Your task to perform on an android device: What is the news today? Image 0: 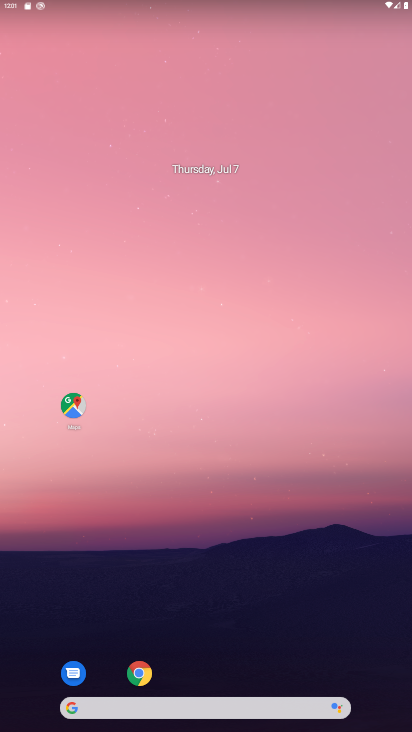
Step 0: drag from (184, 713) to (277, 358)
Your task to perform on an android device: What is the news today? Image 1: 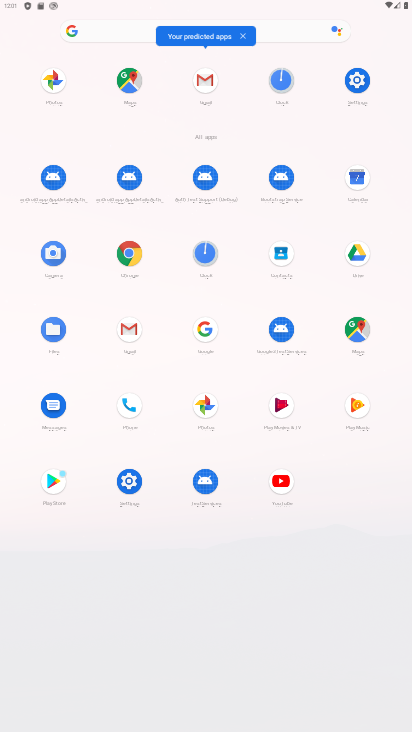
Step 1: click (203, 330)
Your task to perform on an android device: What is the news today? Image 2: 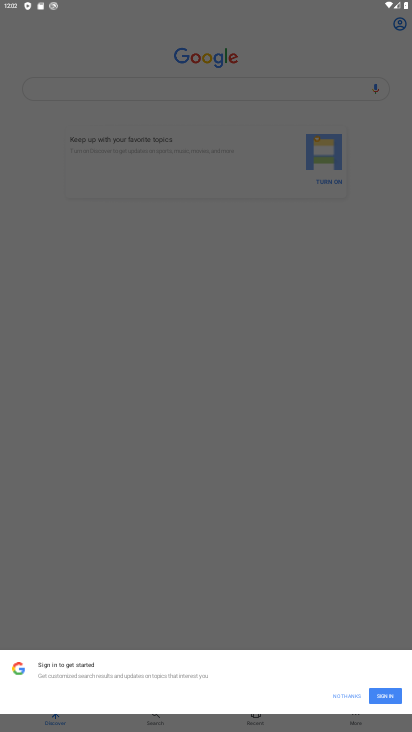
Step 2: click (389, 697)
Your task to perform on an android device: What is the news today? Image 3: 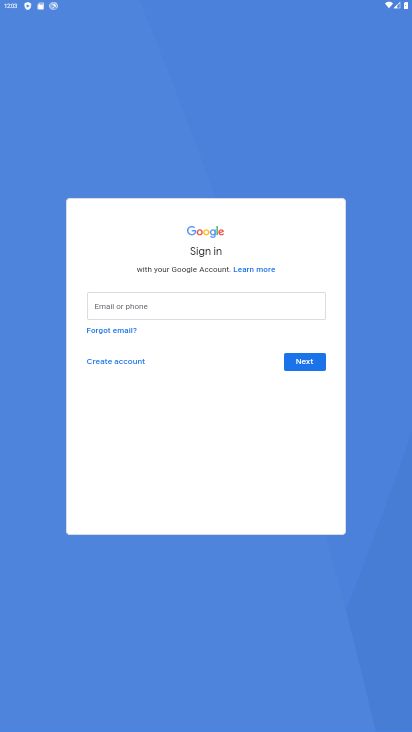
Step 3: task complete